Your task to perform on an android device: Do I have any events today? Image 0: 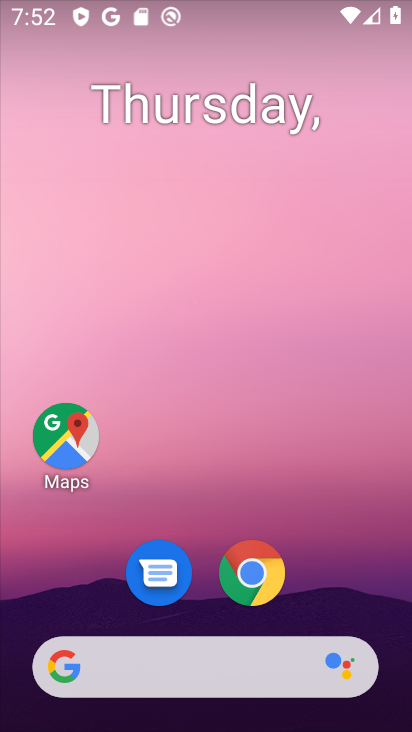
Step 0: drag from (371, 611) to (320, 128)
Your task to perform on an android device: Do I have any events today? Image 1: 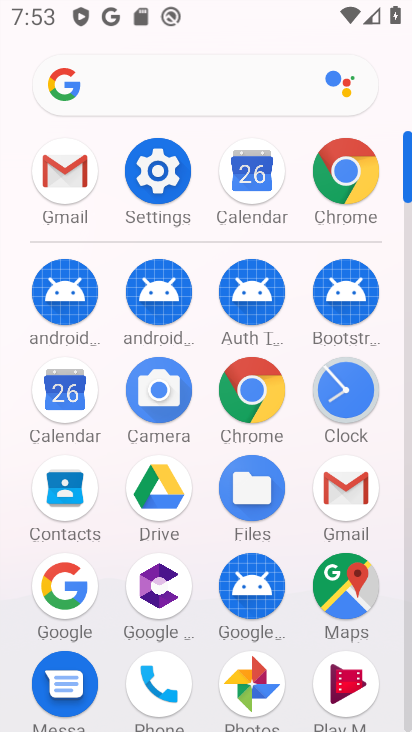
Step 1: click (56, 398)
Your task to perform on an android device: Do I have any events today? Image 2: 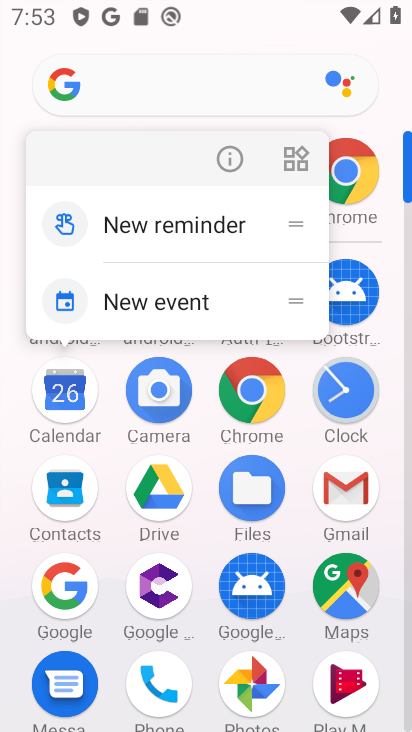
Step 2: click (58, 401)
Your task to perform on an android device: Do I have any events today? Image 3: 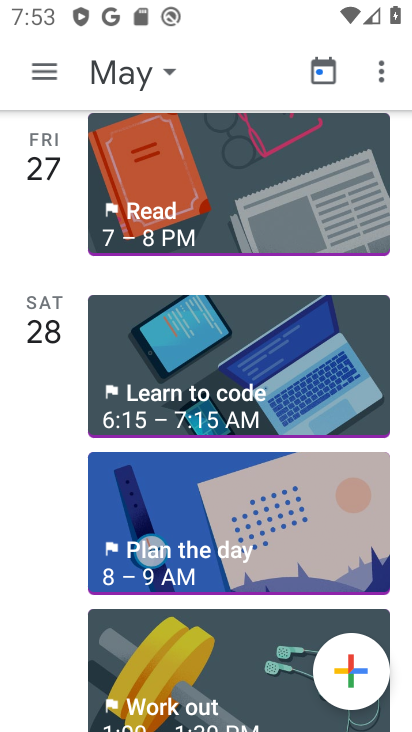
Step 3: task complete